Your task to perform on an android device: Go to wifi settings Image 0: 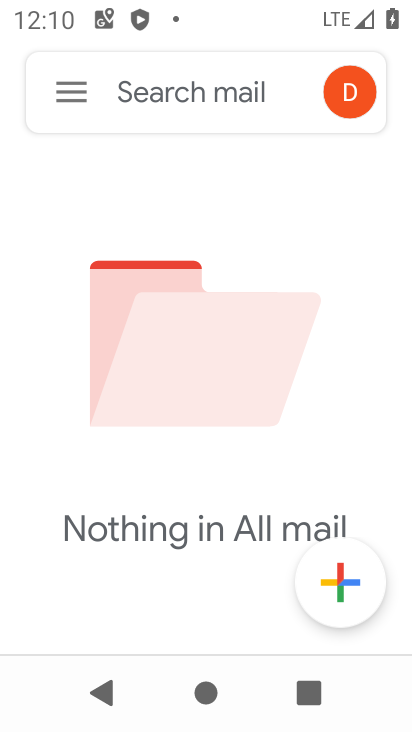
Step 0: press home button
Your task to perform on an android device: Go to wifi settings Image 1: 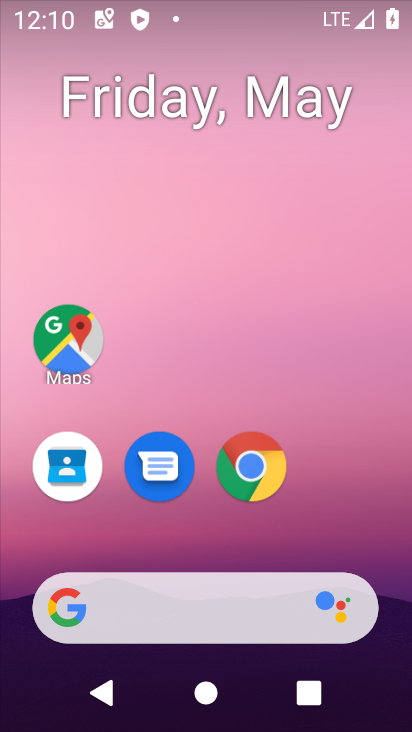
Step 1: drag from (208, 517) to (188, 55)
Your task to perform on an android device: Go to wifi settings Image 2: 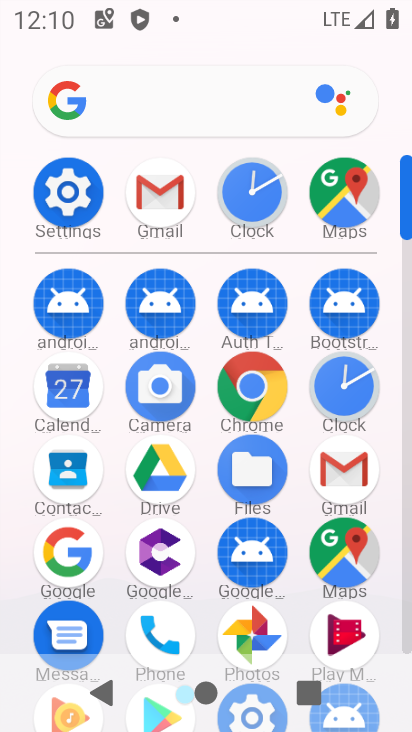
Step 2: click (51, 218)
Your task to perform on an android device: Go to wifi settings Image 3: 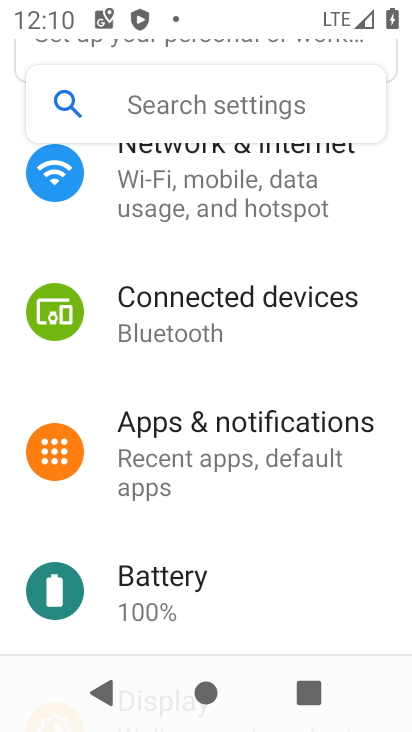
Step 3: click (208, 210)
Your task to perform on an android device: Go to wifi settings Image 4: 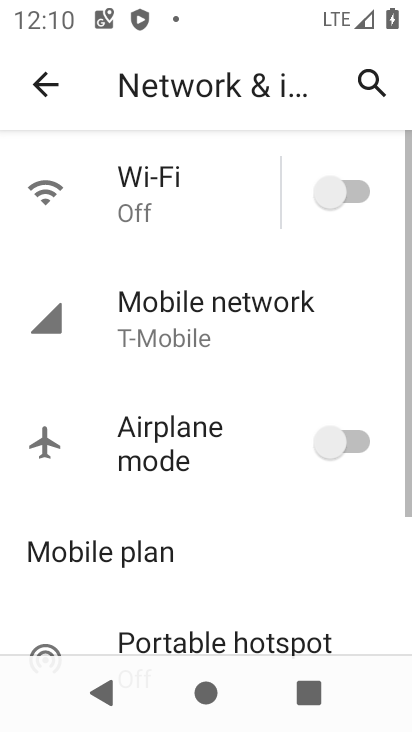
Step 4: click (174, 215)
Your task to perform on an android device: Go to wifi settings Image 5: 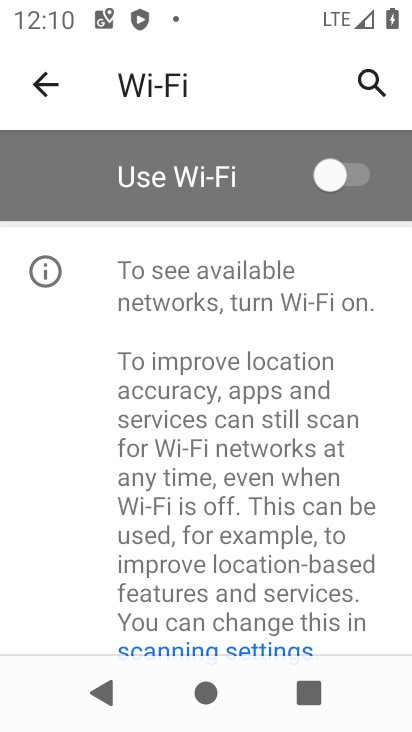
Step 5: task complete